Your task to perform on an android device: turn on improve location accuracy Image 0: 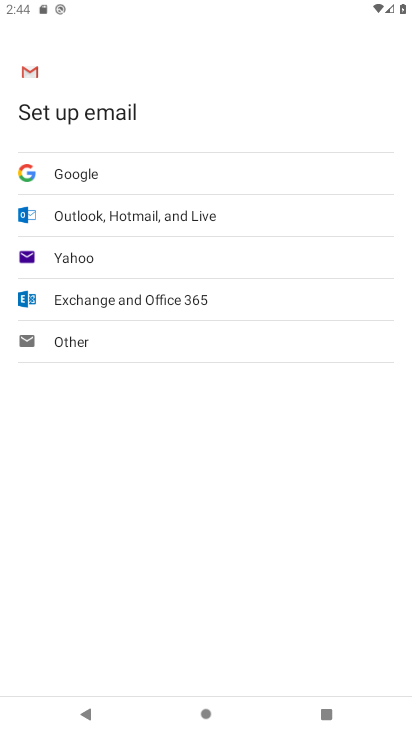
Step 0: press home button
Your task to perform on an android device: turn on improve location accuracy Image 1: 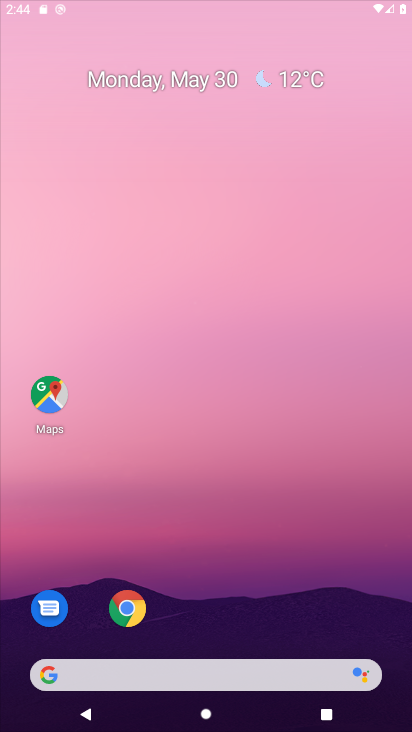
Step 1: drag from (286, 587) to (202, 22)
Your task to perform on an android device: turn on improve location accuracy Image 2: 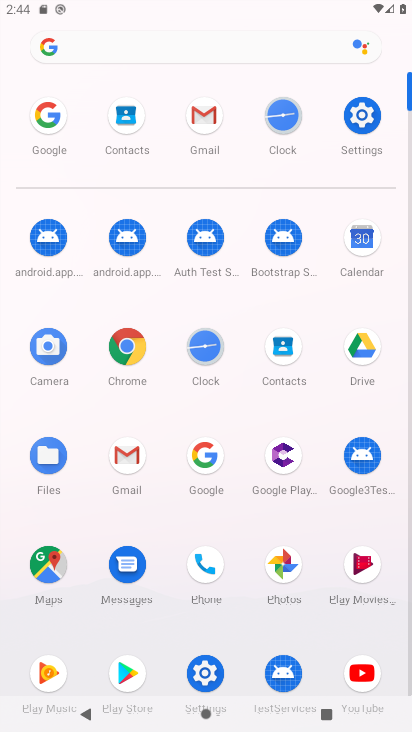
Step 2: click (356, 180)
Your task to perform on an android device: turn on improve location accuracy Image 3: 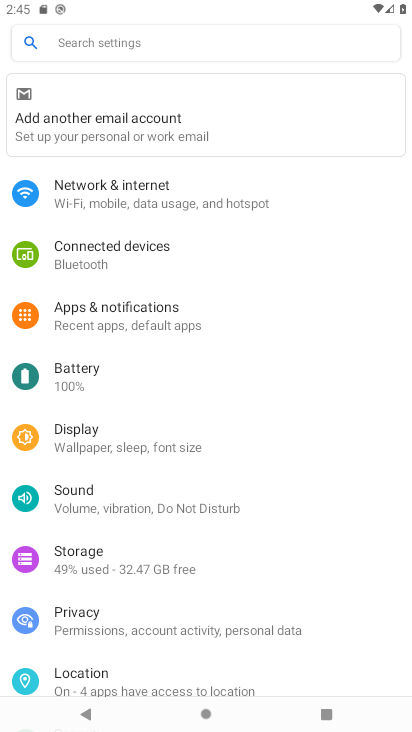
Step 3: drag from (189, 592) to (207, 79)
Your task to perform on an android device: turn on improve location accuracy Image 4: 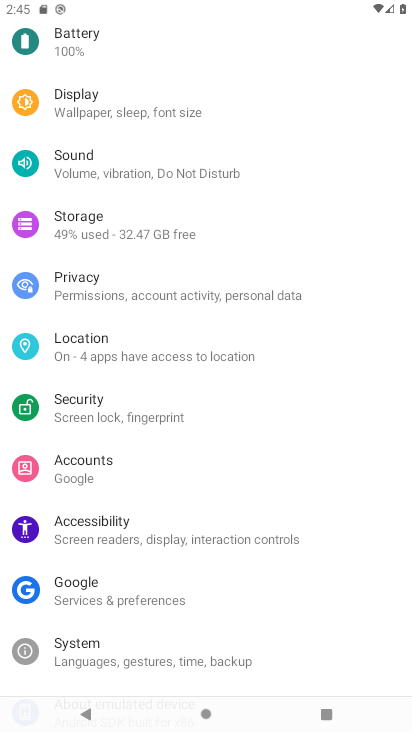
Step 4: click (143, 342)
Your task to perform on an android device: turn on improve location accuracy Image 5: 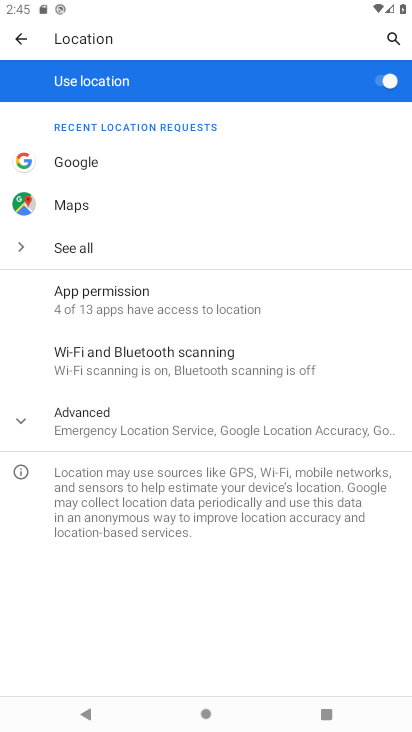
Step 5: click (142, 417)
Your task to perform on an android device: turn on improve location accuracy Image 6: 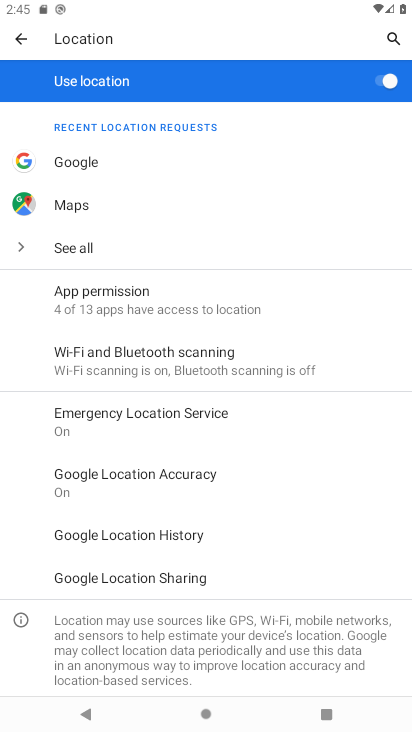
Step 6: click (195, 479)
Your task to perform on an android device: turn on improve location accuracy Image 7: 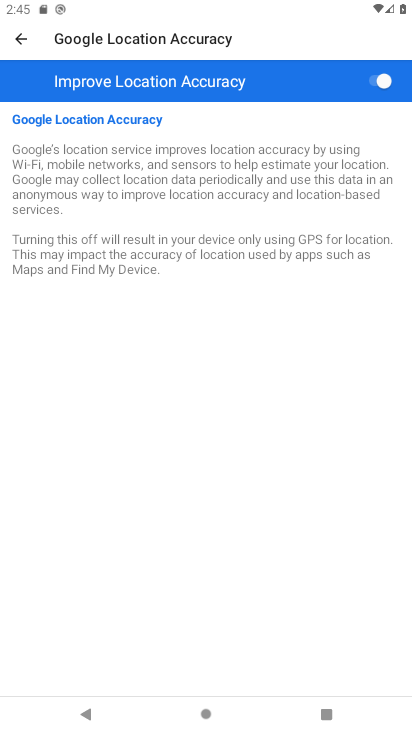
Step 7: click (373, 89)
Your task to perform on an android device: turn on improve location accuracy Image 8: 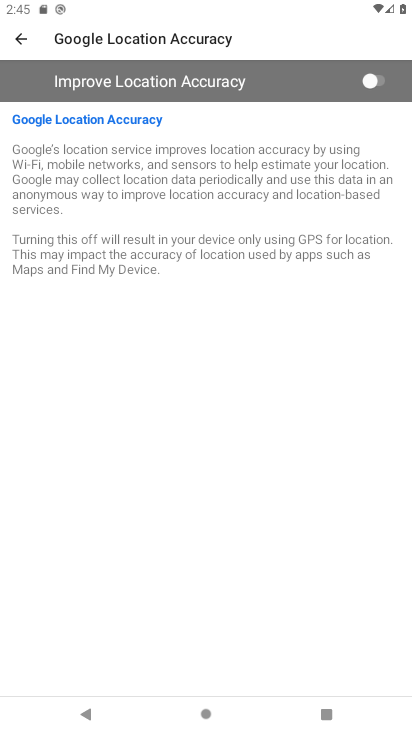
Step 8: click (373, 89)
Your task to perform on an android device: turn on improve location accuracy Image 9: 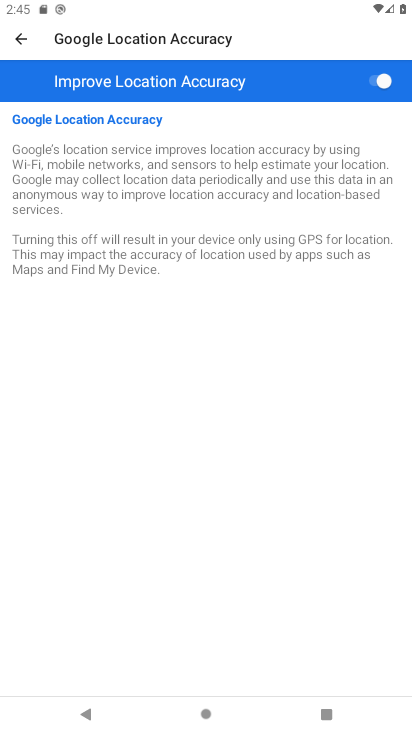
Step 9: task complete